Your task to perform on an android device: Open the map Image 0: 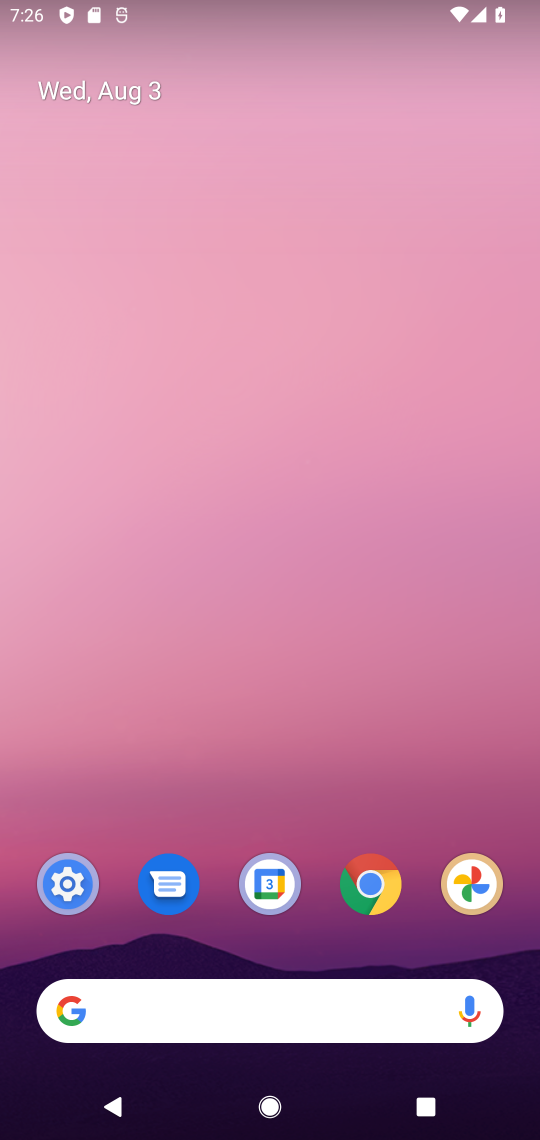
Step 0: drag from (307, 740) to (348, 179)
Your task to perform on an android device: Open the map Image 1: 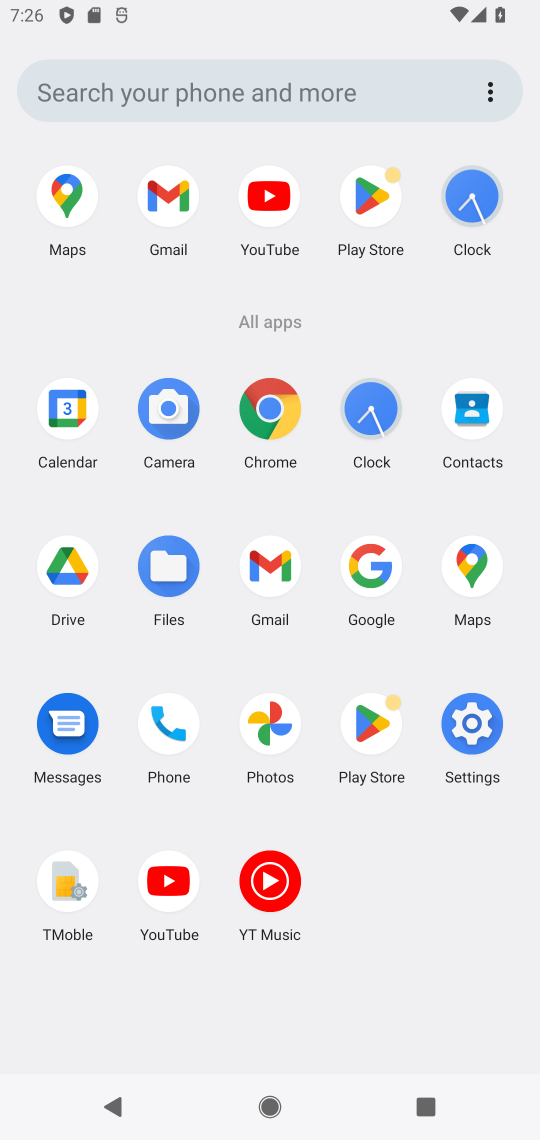
Step 1: click (471, 568)
Your task to perform on an android device: Open the map Image 2: 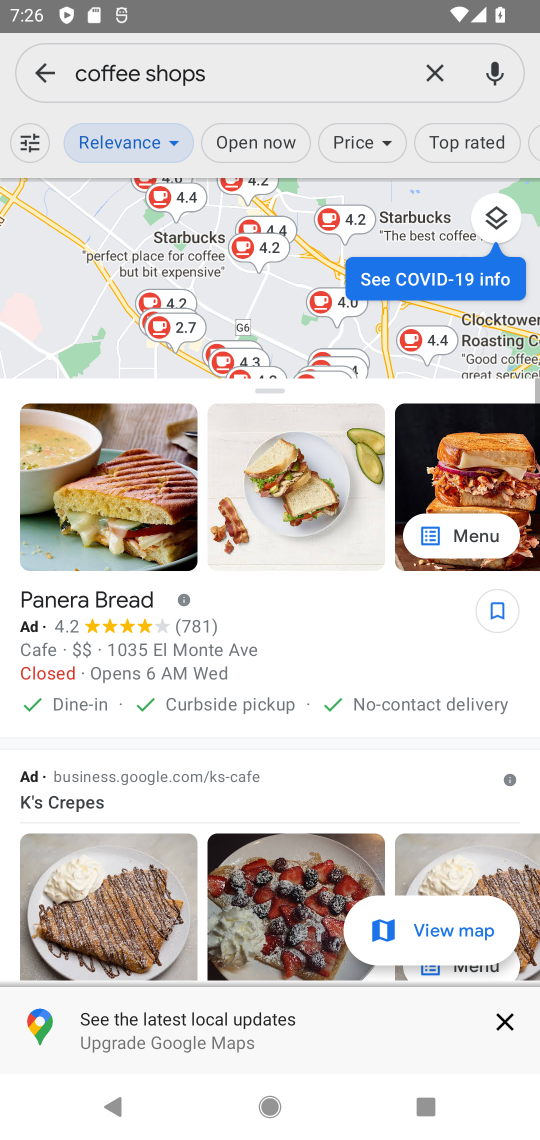
Step 2: task complete